Your task to perform on an android device: change keyboard looks Image 0: 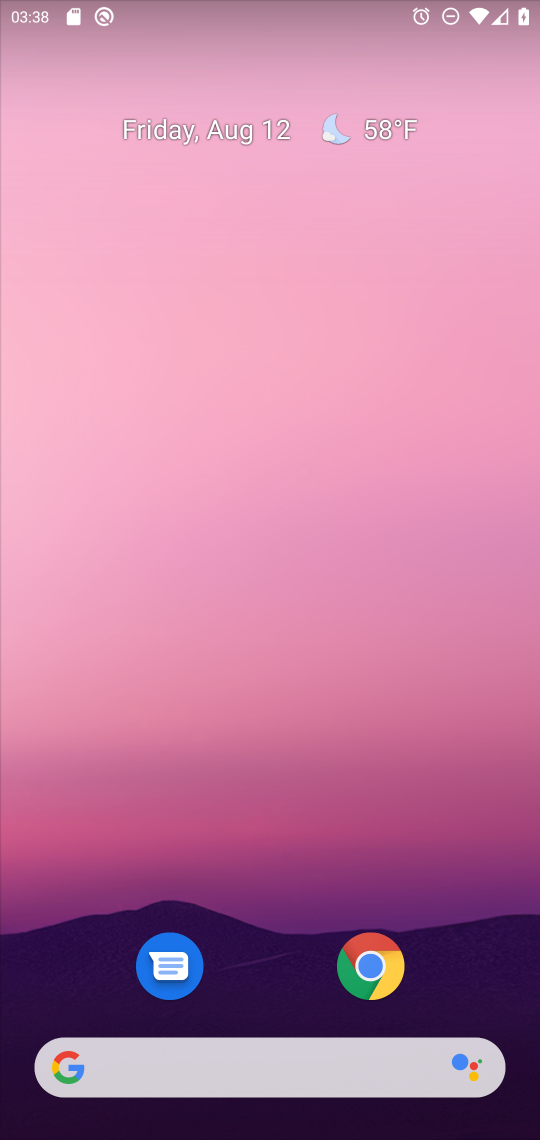
Step 0: drag from (239, 871) to (398, 64)
Your task to perform on an android device: change keyboard looks Image 1: 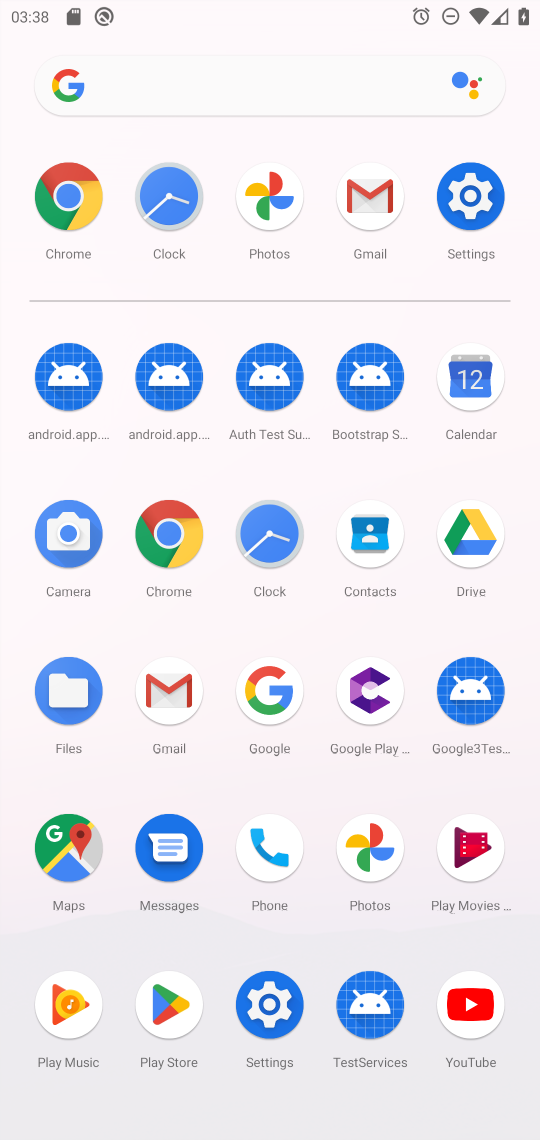
Step 1: click (266, 998)
Your task to perform on an android device: change keyboard looks Image 2: 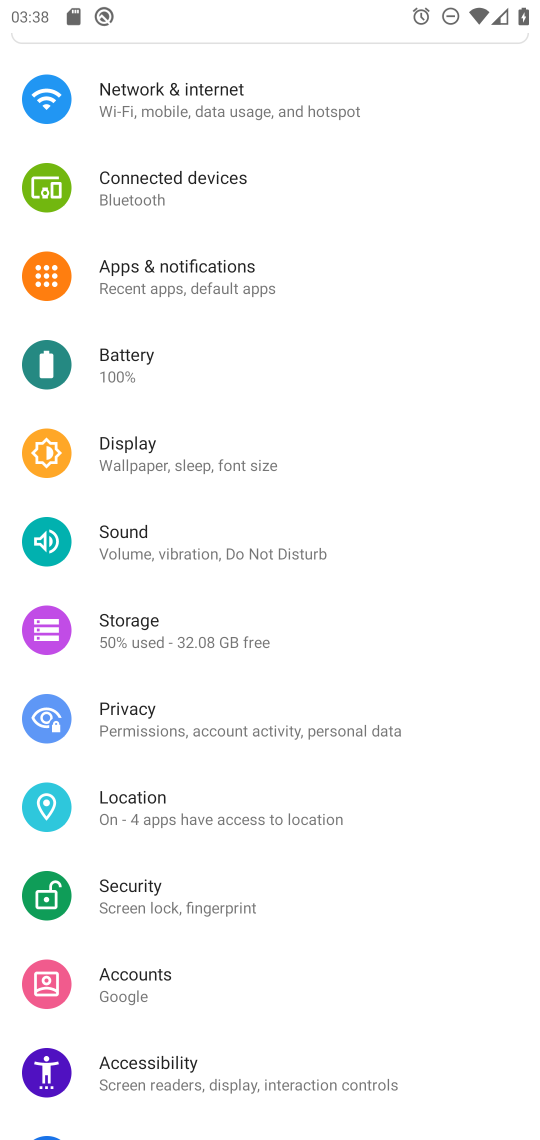
Step 2: drag from (288, 971) to (392, 156)
Your task to perform on an android device: change keyboard looks Image 3: 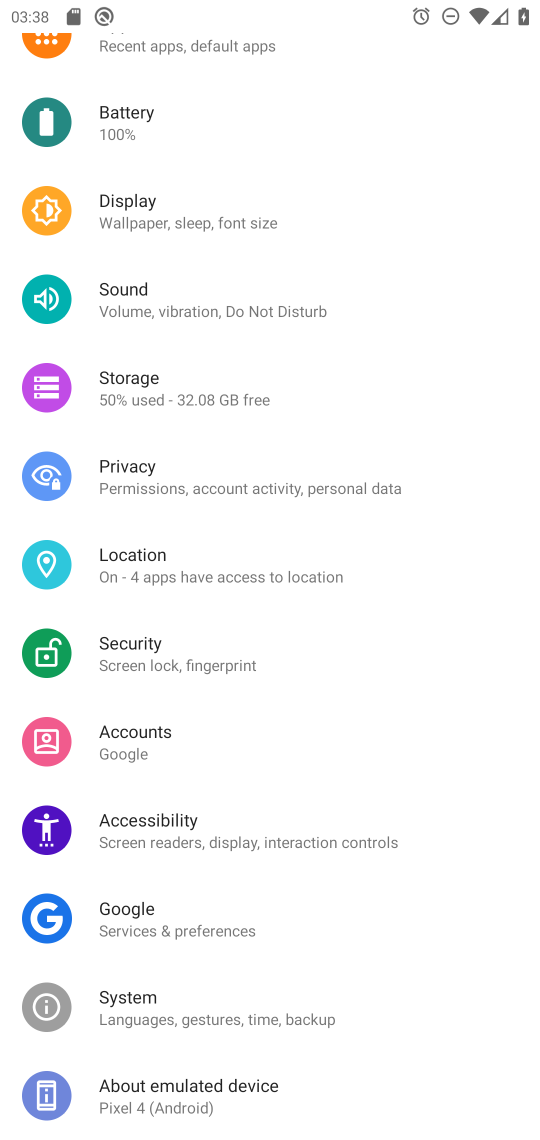
Step 3: click (184, 1015)
Your task to perform on an android device: change keyboard looks Image 4: 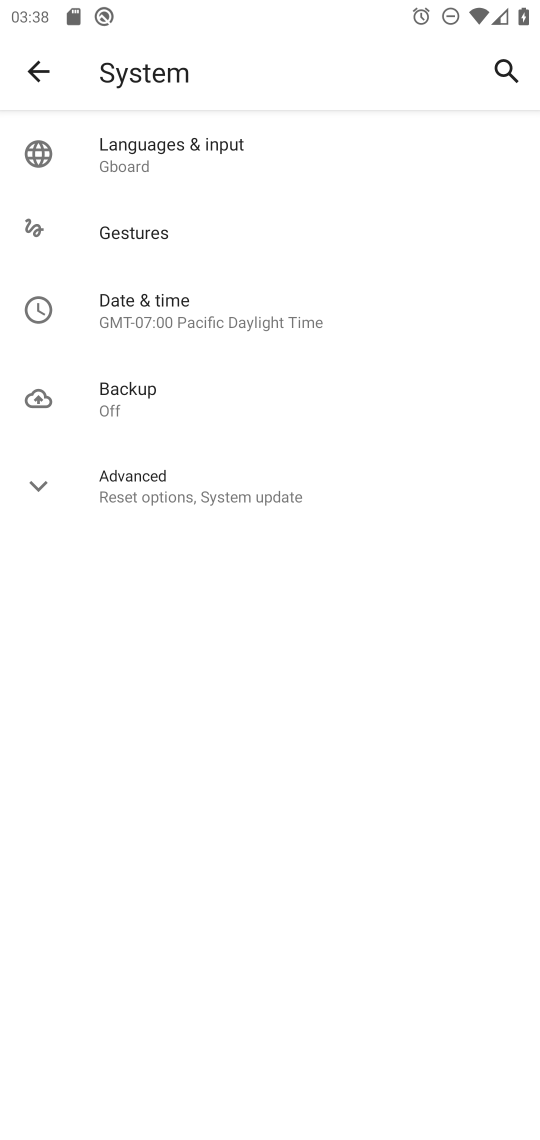
Step 4: click (136, 163)
Your task to perform on an android device: change keyboard looks Image 5: 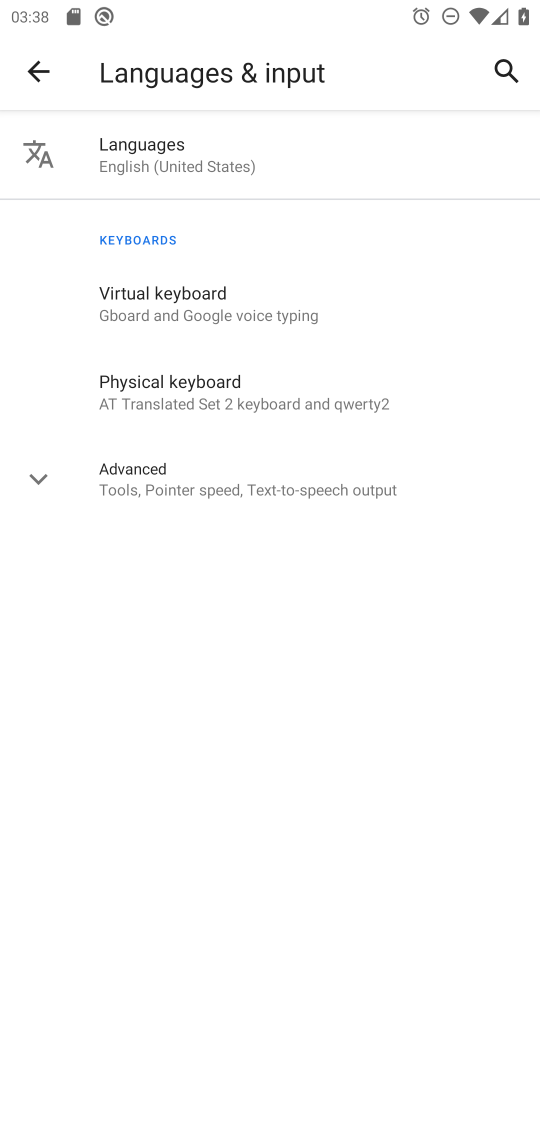
Step 5: click (189, 304)
Your task to perform on an android device: change keyboard looks Image 6: 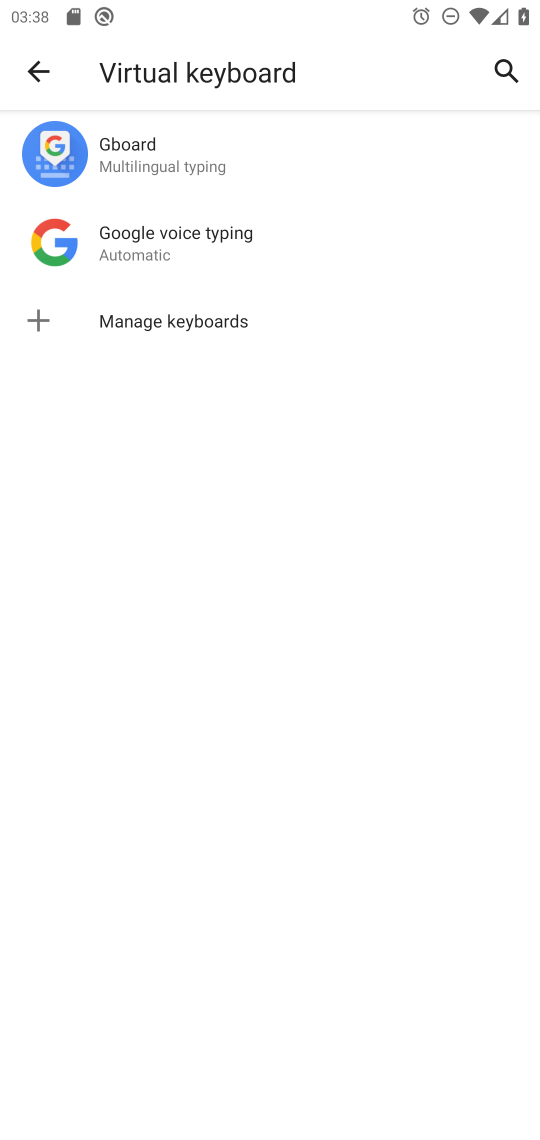
Step 6: click (170, 160)
Your task to perform on an android device: change keyboard looks Image 7: 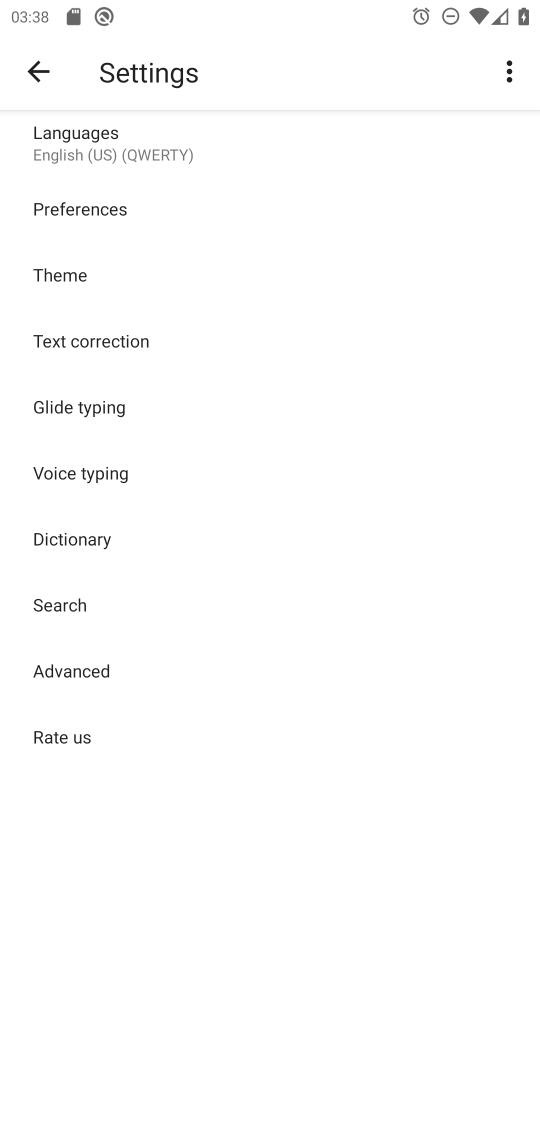
Step 7: click (57, 281)
Your task to perform on an android device: change keyboard looks Image 8: 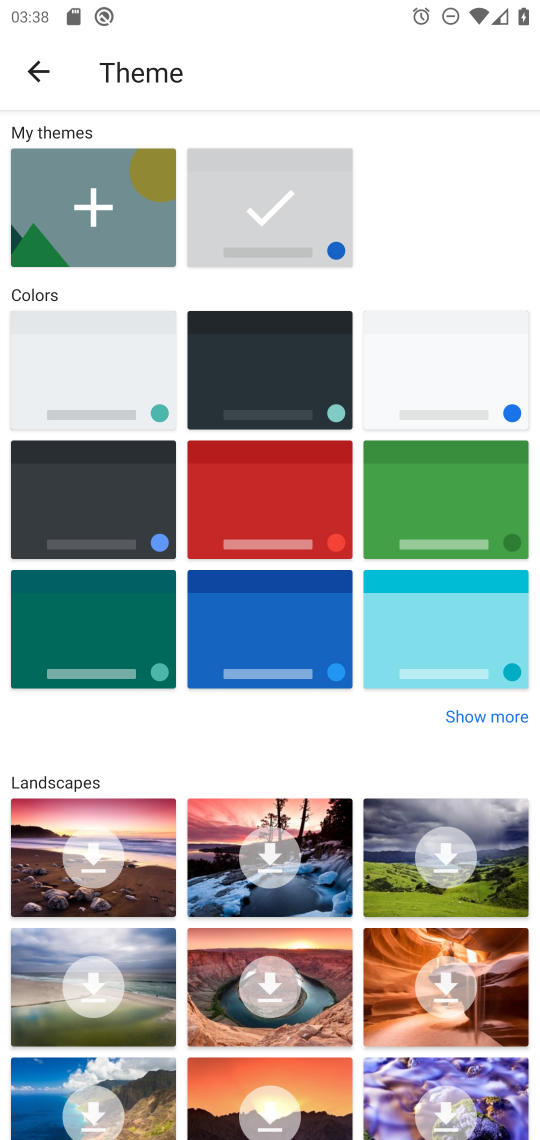
Step 8: click (114, 352)
Your task to perform on an android device: change keyboard looks Image 9: 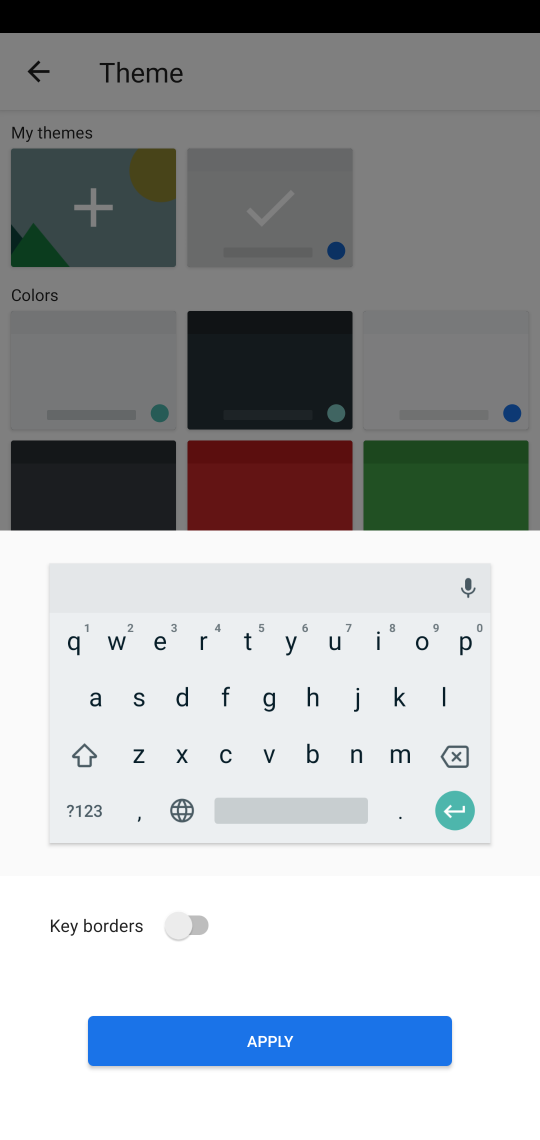
Step 9: click (331, 1038)
Your task to perform on an android device: change keyboard looks Image 10: 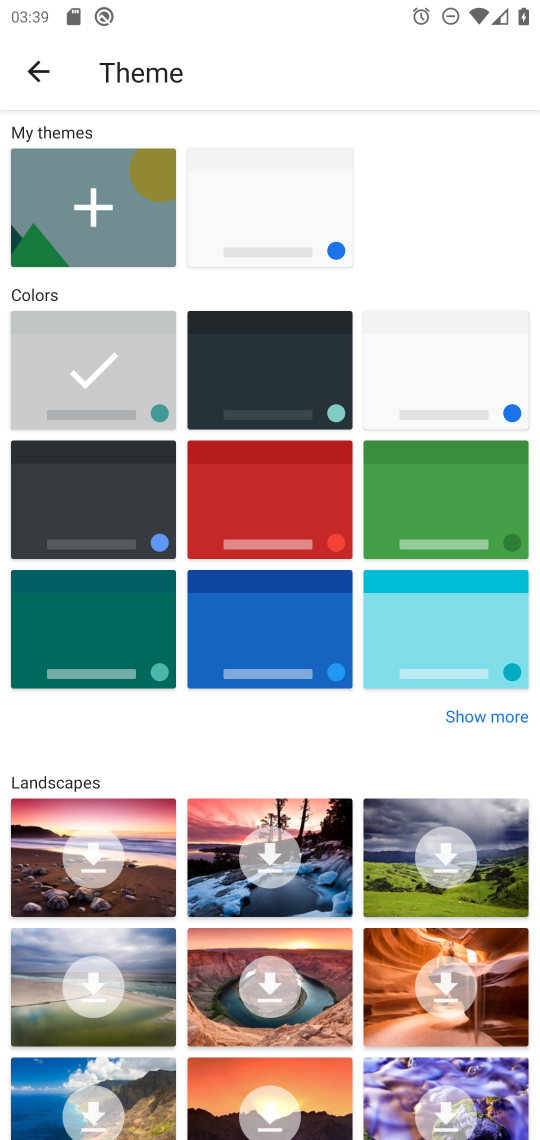
Step 10: task complete